Your task to perform on an android device: Clear the shopping cart on walmart.com. Add energizer triple a to the cart on walmart.com, then select checkout. Image 0: 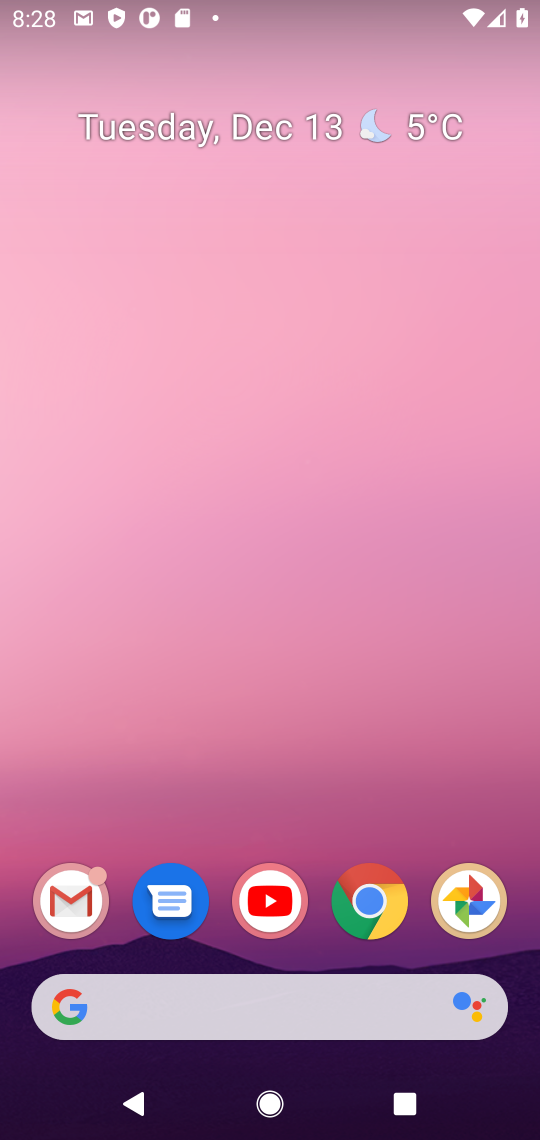
Step 0: click (364, 890)
Your task to perform on an android device: Clear the shopping cart on walmart.com. Add energizer triple a to the cart on walmart.com, then select checkout. Image 1: 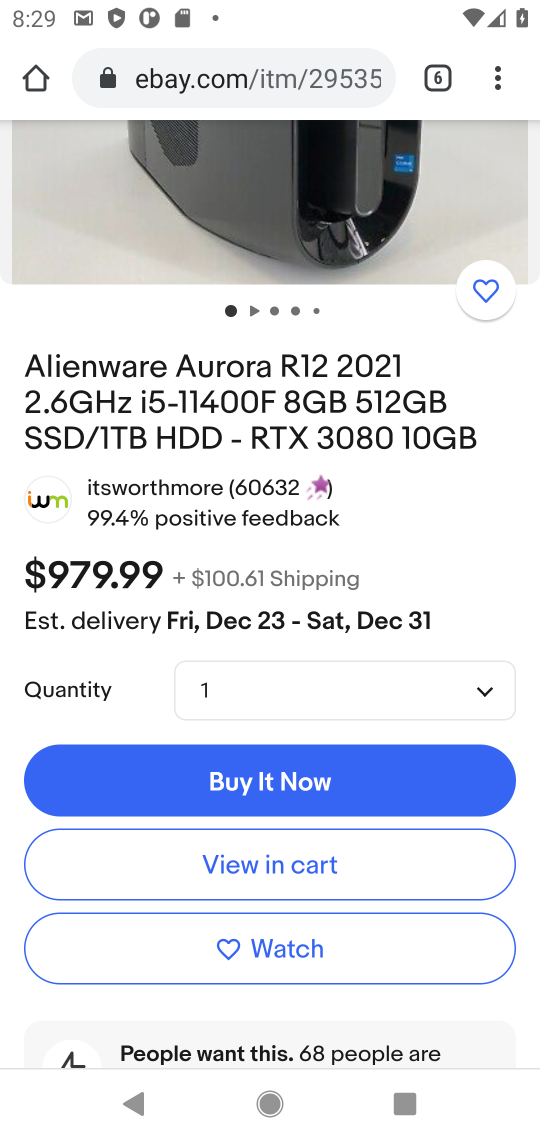
Step 1: click (427, 74)
Your task to perform on an android device: Clear the shopping cart on walmart.com. Add energizer triple a to the cart on walmart.com, then select checkout. Image 2: 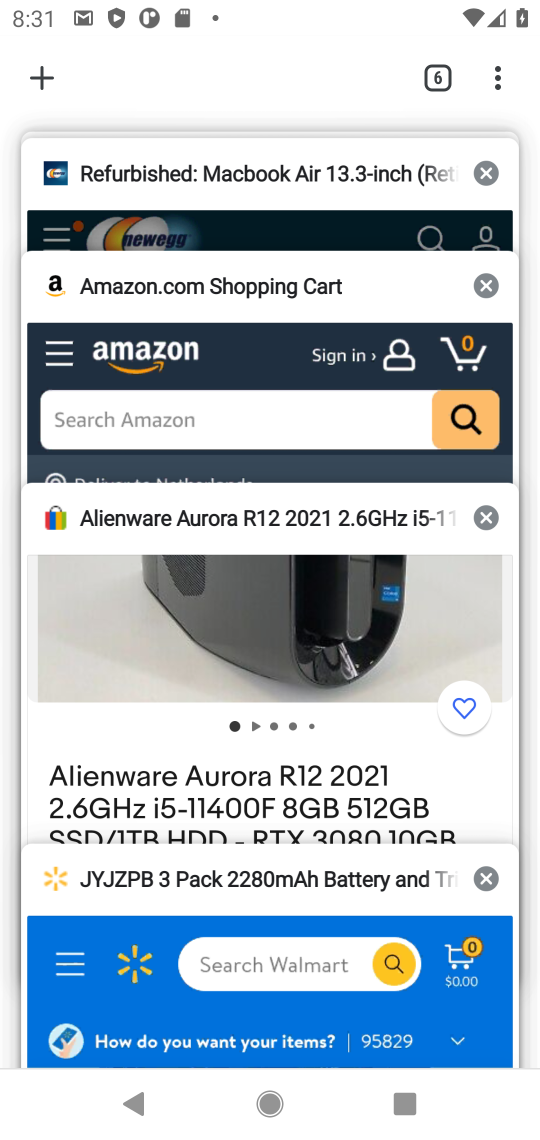
Step 2: click (204, 1048)
Your task to perform on an android device: Clear the shopping cart on walmart.com. Add energizer triple a to the cart on walmart.com, then select checkout. Image 3: 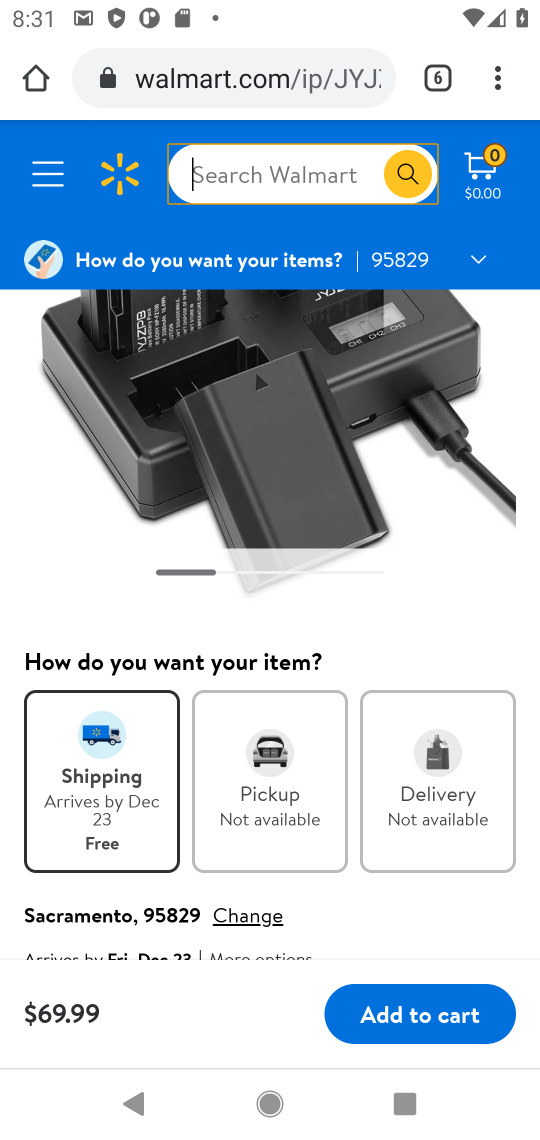
Step 3: click (467, 164)
Your task to perform on an android device: Clear the shopping cart on walmart.com. Add energizer triple a to the cart on walmart.com, then select checkout. Image 4: 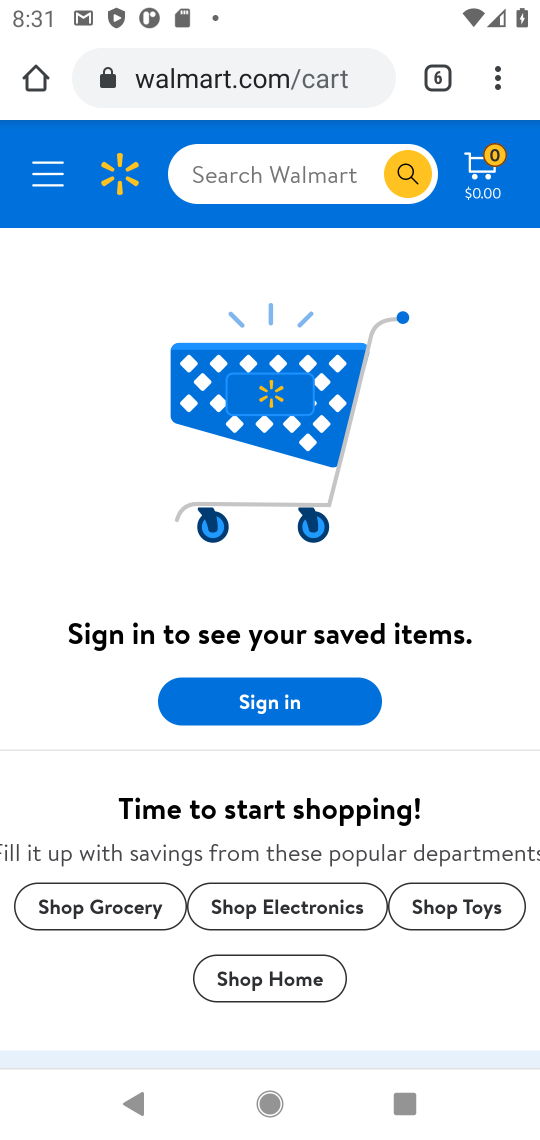
Step 4: click (233, 172)
Your task to perform on an android device: Clear the shopping cart on walmart.com. Add energizer triple a to the cart on walmart.com, then select checkout. Image 5: 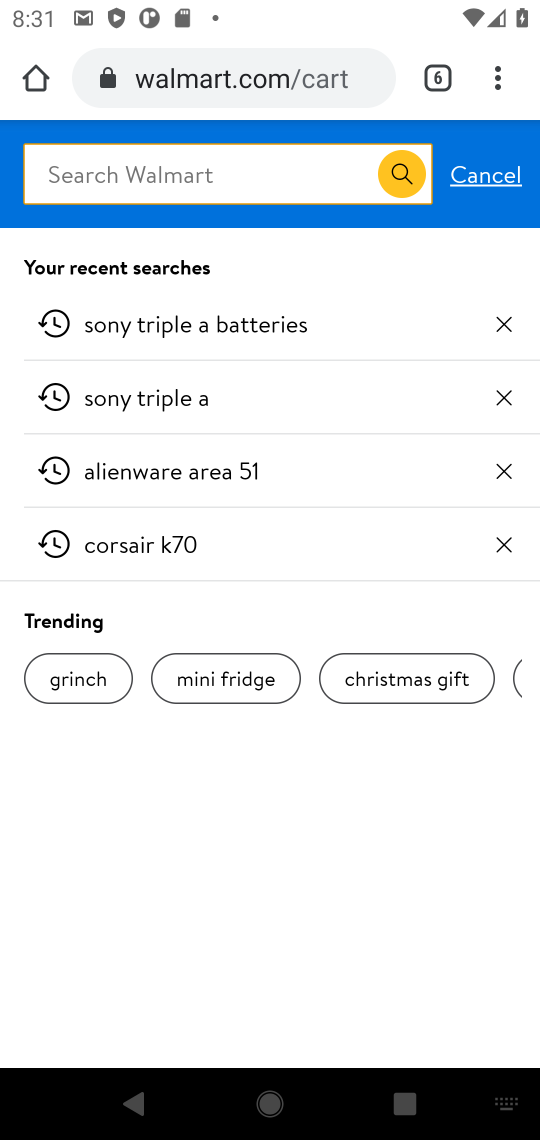
Step 5: type "energizer triple a"
Your task to perform on an android device: Clear the shopping cart on walmart.com. Add energizer triple a to the cart on walmart.com, then select checkout. Image 6: 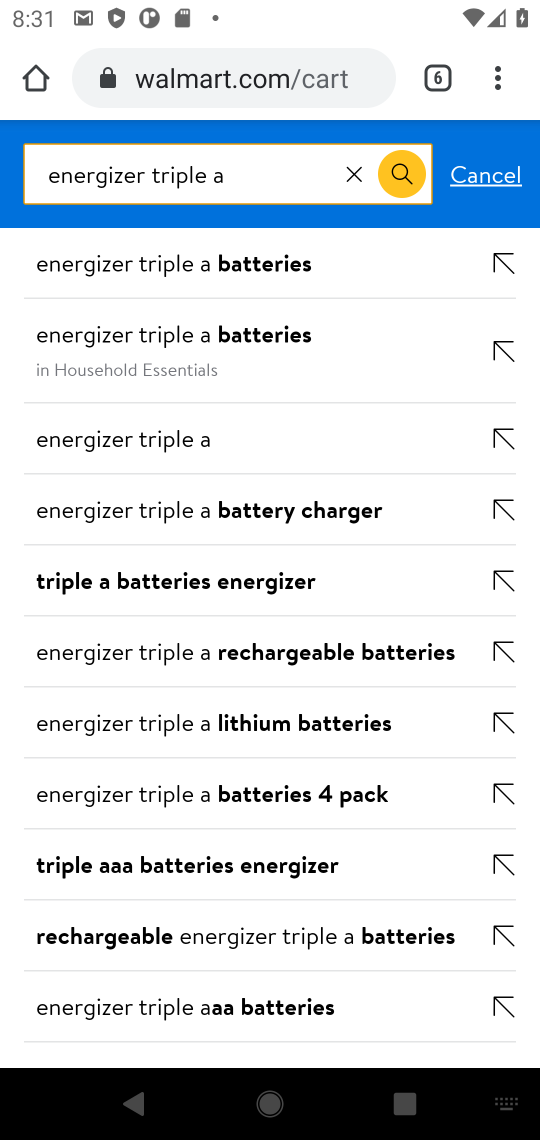
Step 6: click (258, 261)
Your task to perform on an android device: Clear the shopping cart on walmart.com. Add energizer triple a to the cart on walmart.com, then select checkout. Image 7: 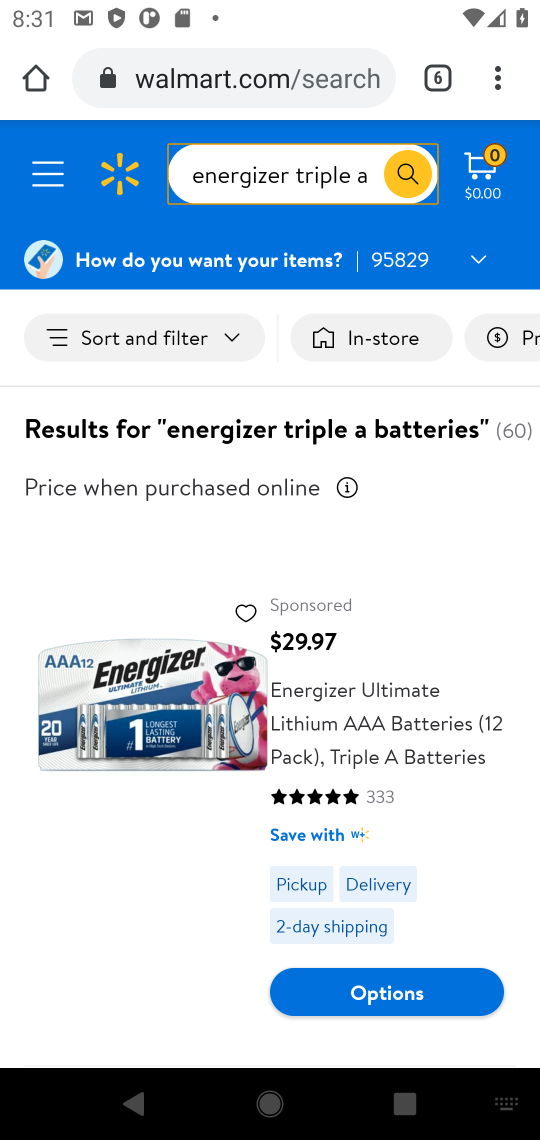
Step 7: click (371, 746)
Your task to perform on an android device: Clear the shopping cart on walmart.com. Add energizer triple a to the cart on walmart.com, then select checkout. Image 8: 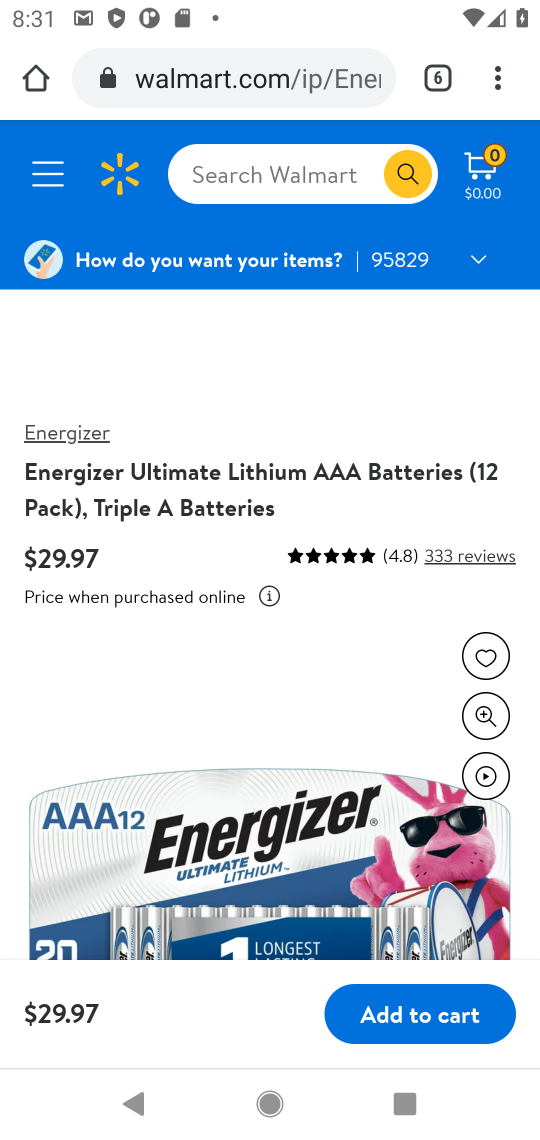
Step 8: click (411, 1016)
Your task to perform on an android device: Clear the shopping cart on walmart.com. Add energizer triple a to the cart on walmart.com, then select checkout. Image 9: 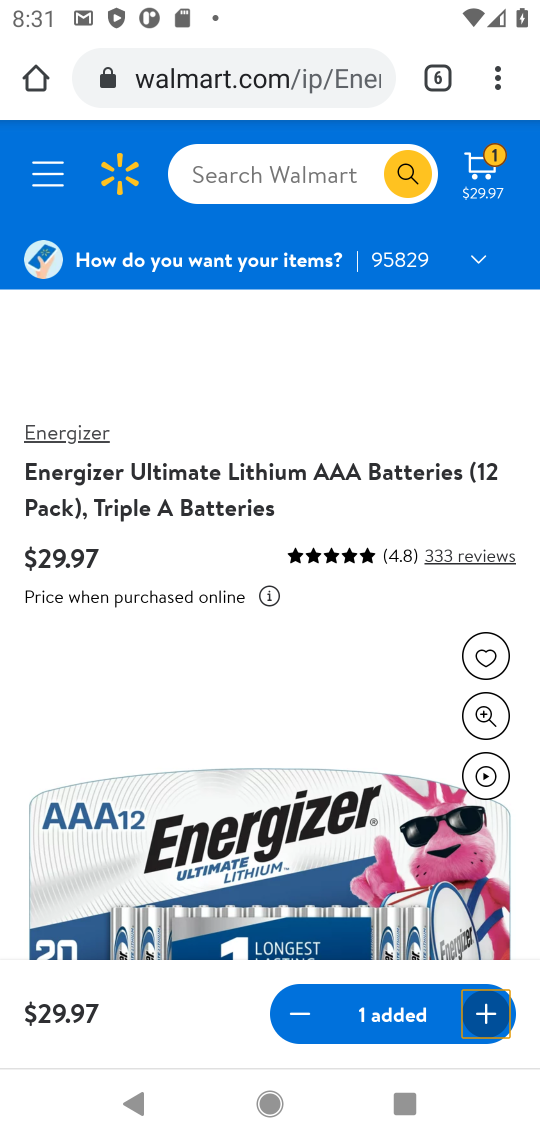
Step 9: task complete